Your task to perform on an android device: star an email in the gmail app Image 0: 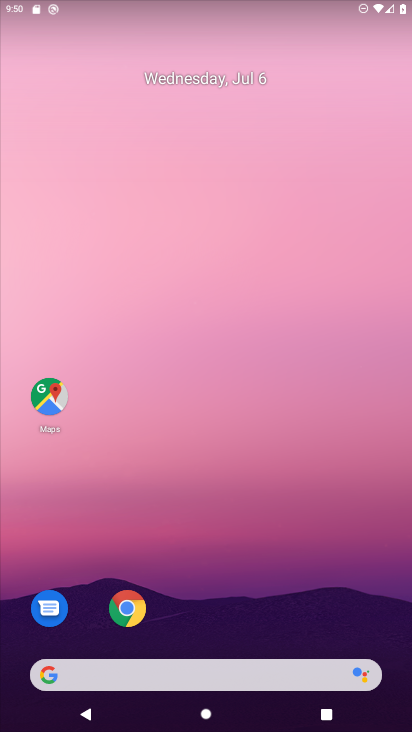
Step 0: drag from (163, 666) to (241, 118)
Your task to perform on an android device: star an email in the gmail app Image 1: 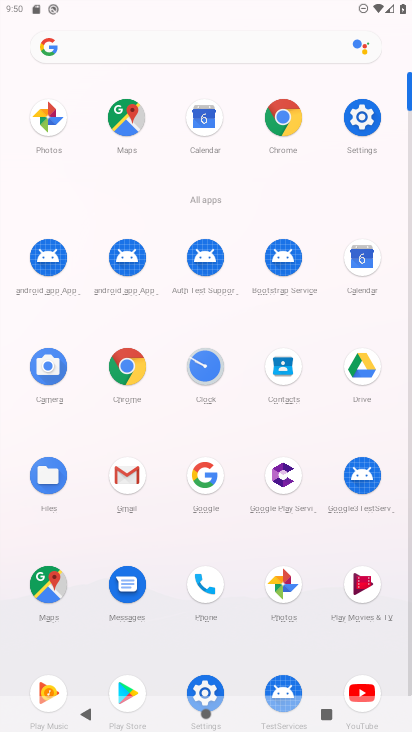
Step 1: click (121, 470)
Your task to perform on an android device: star an email in the gmail app Image 2: 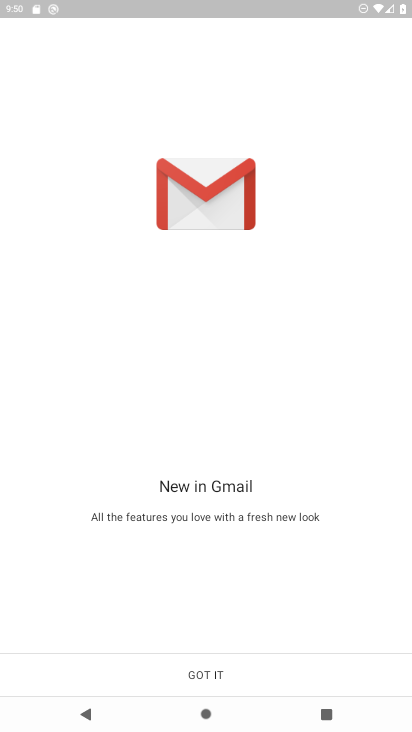
Step 2: click (214, 679)
Your task to perform on an android device: star an email in the gmail app Image 3: 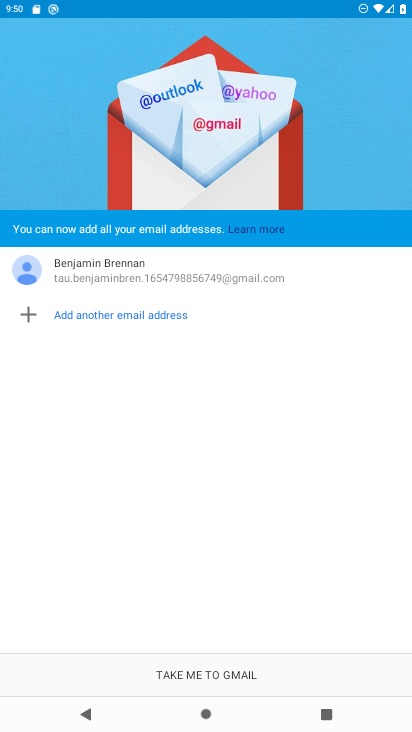
Step 3: click (214, 672)
Your task to perform on an android device: star an email in the gmail app Image 4: 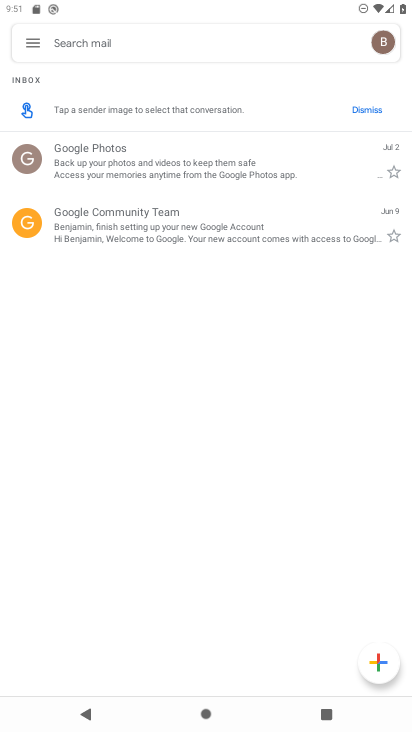
Step 4: click (394, 175)
Your task to perform on an android device: star an email in the gmail app Image 5: 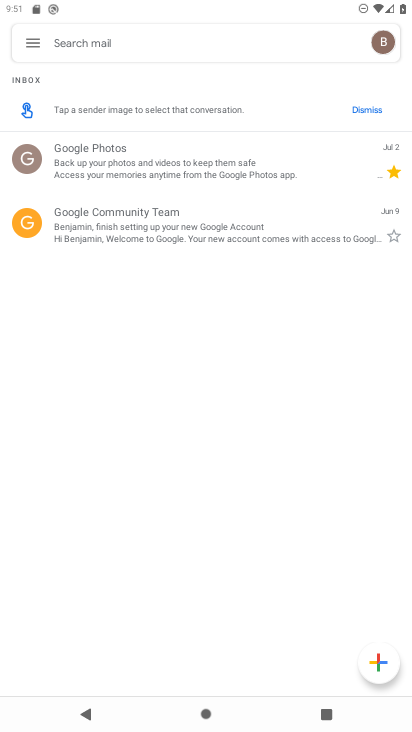
Step 5: task complete